Your task to perform on an android device: Show me the alarms in the clock app Image 0: 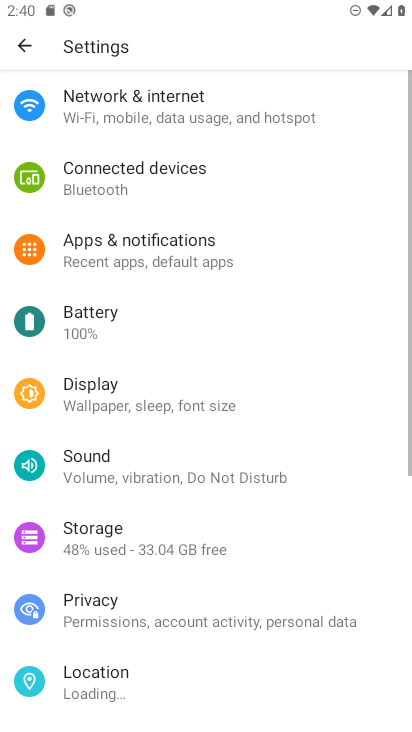
Step 0: press back button
Your task to perform on an android device: Show me the alarms in the clock app Image 1: 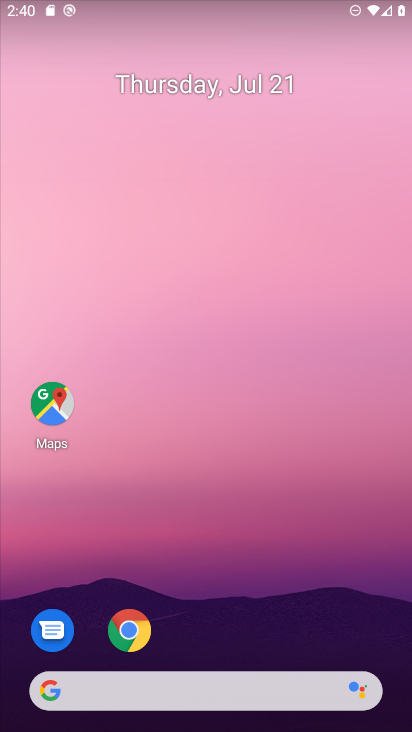
Step 1: drag from (231, 618) to (304, 10)
Your task to perform on an android device: Show me the alarms in the clock app Image 2: 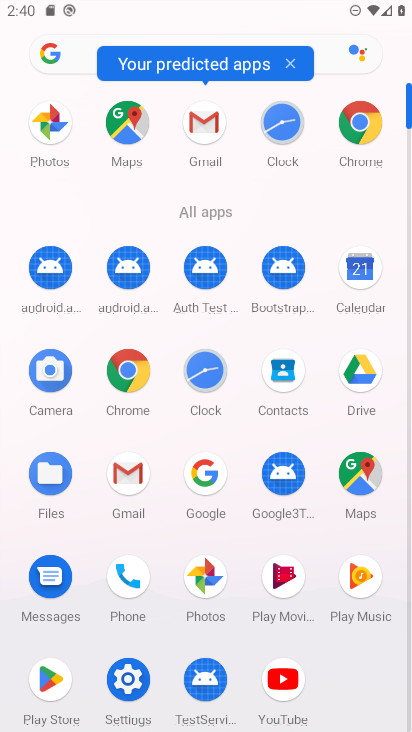
Step 2: click (209, 385)
Your task to perform on an android device: Show me the alarms in the clock app Image 3: 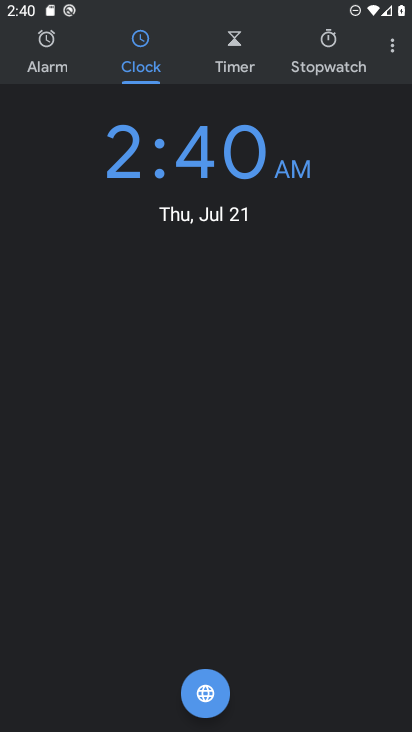
Step 3: click (53, 51)
Your task to perform on an android device: Show me the alarms in the clock app Image 4: 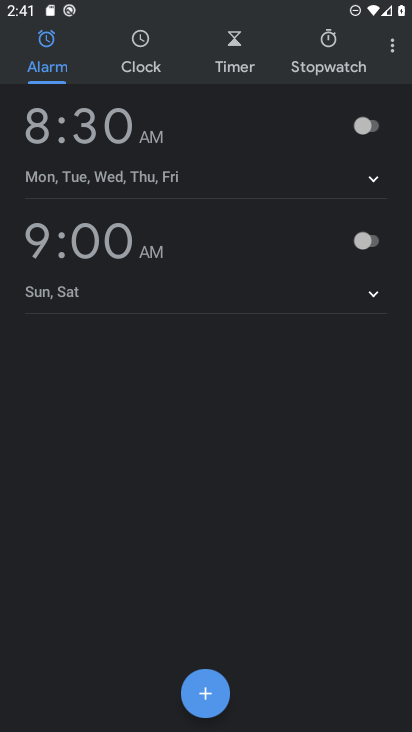
Step 4: task complete